Your task to perform on an android device: Search for the best-rated coffee table on Crate & Barrel Image 0: 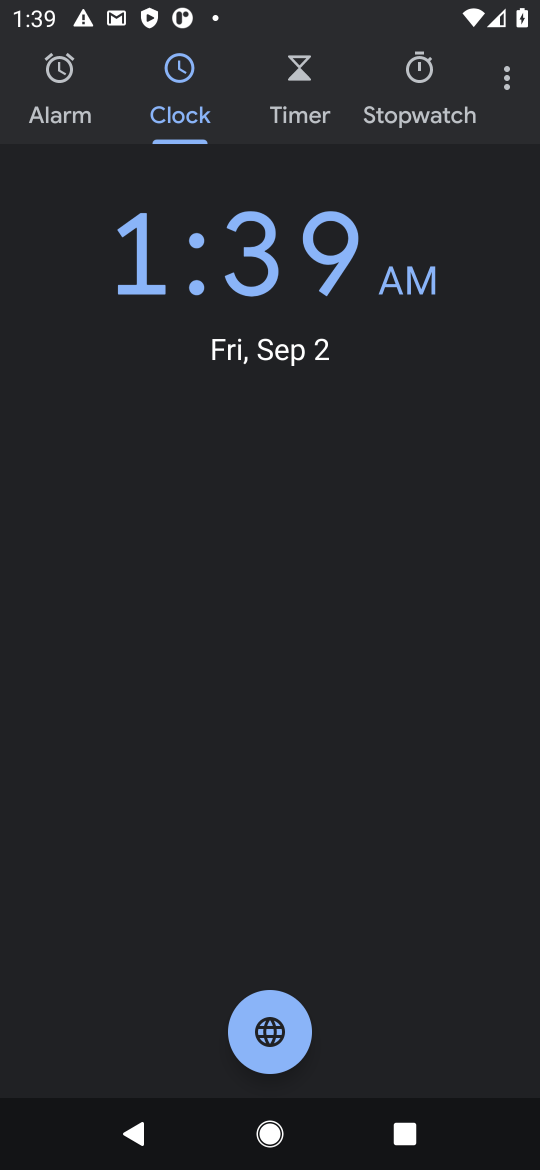
Step 0: press home button
Your task to perform on an android device: Search for the best-rated coffee table on Crate & Barrel Image 1: 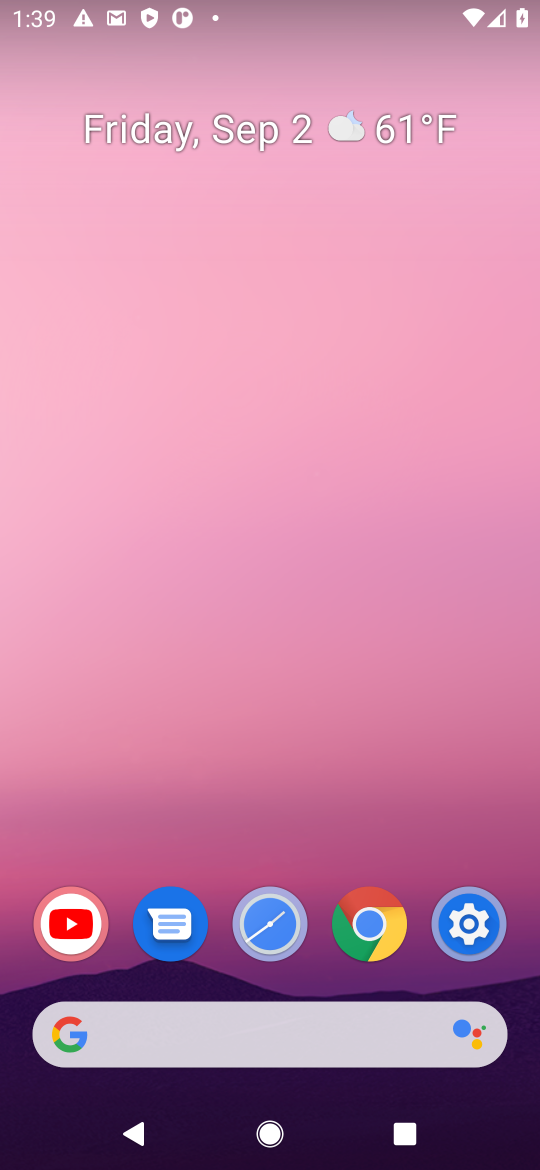
Step 1: click (384, 1036)
Your task to perform on an android device: Search for the best-rated coffee table on Crate & Barrel Image 2: 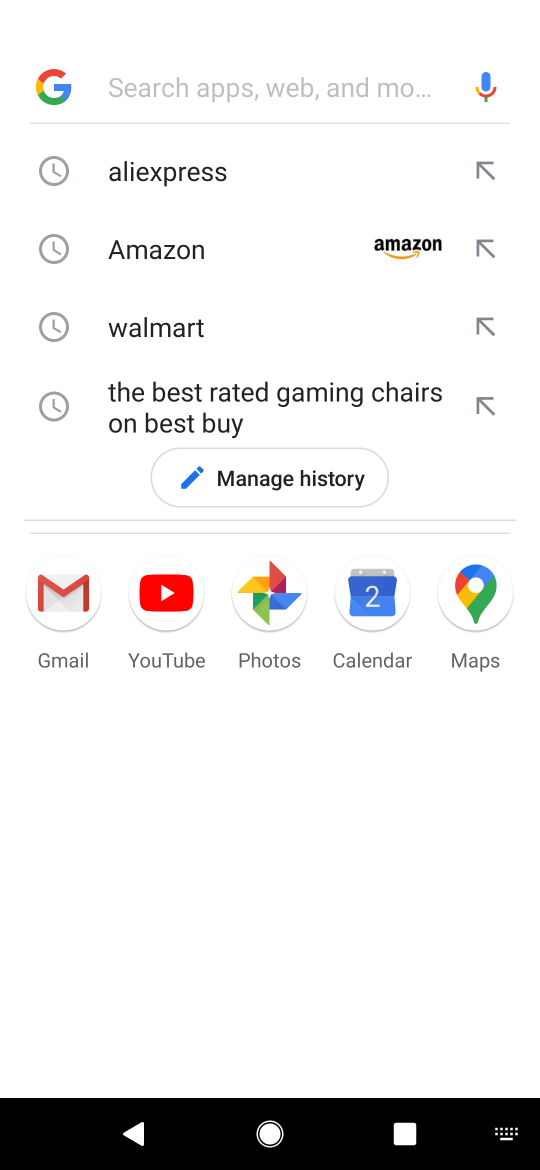
Step 2: press enter
Your task to perform on an android device: Search for the best-rated coffee table on Crate & Barrel Image 3: 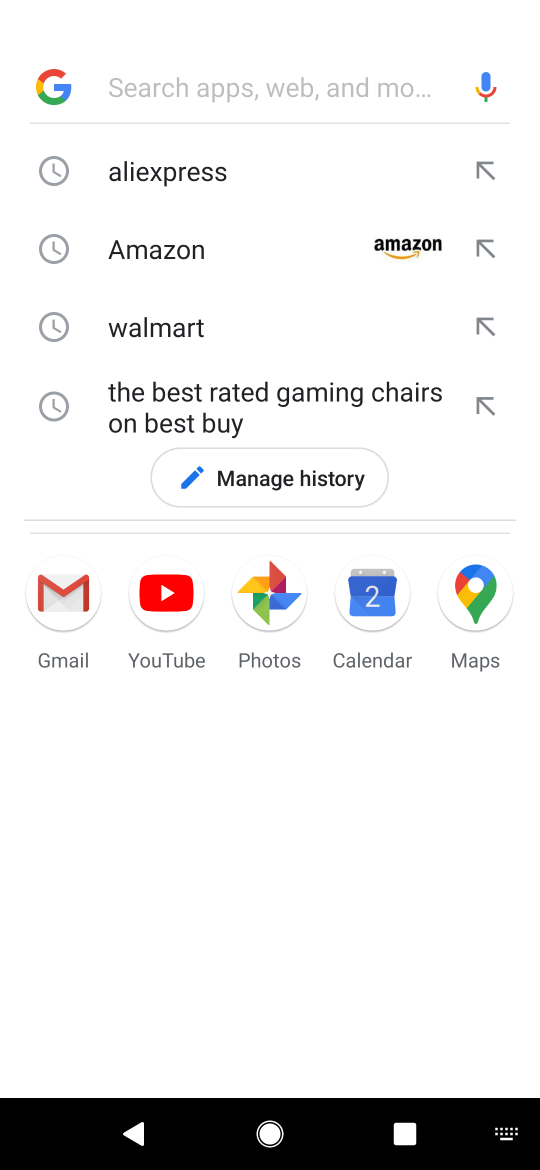
Step 3: type "crate barrel"
Your task to perform on an android device: Search for the best-rated coffee table on Crate & Barrel Image 4: 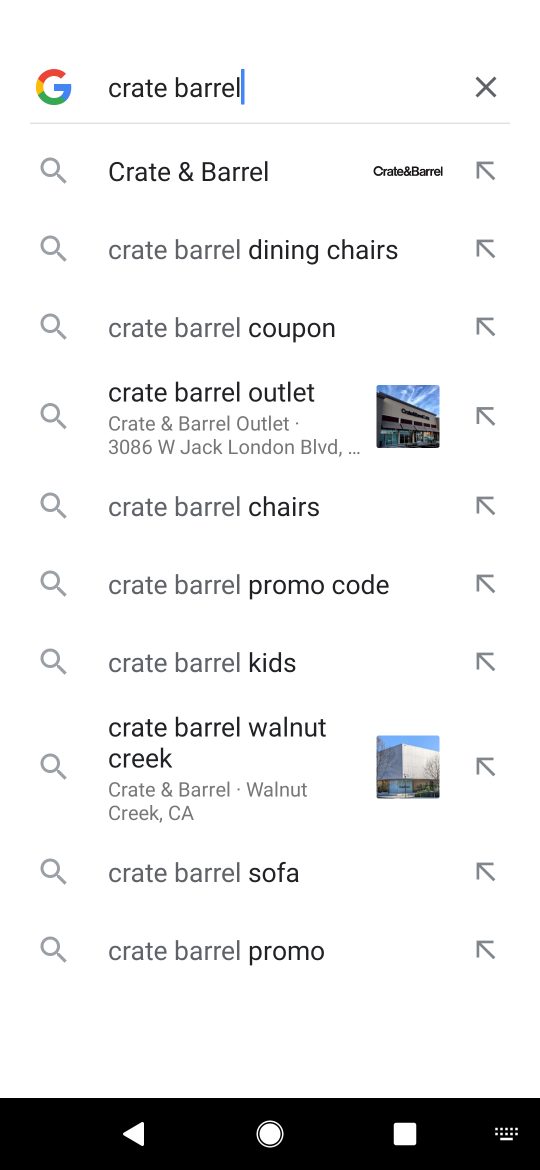
Step 4: click (229, 168)
Your task to perform on an android device: Search for the best-rated coffee table on Crate & Barrel Image 5: 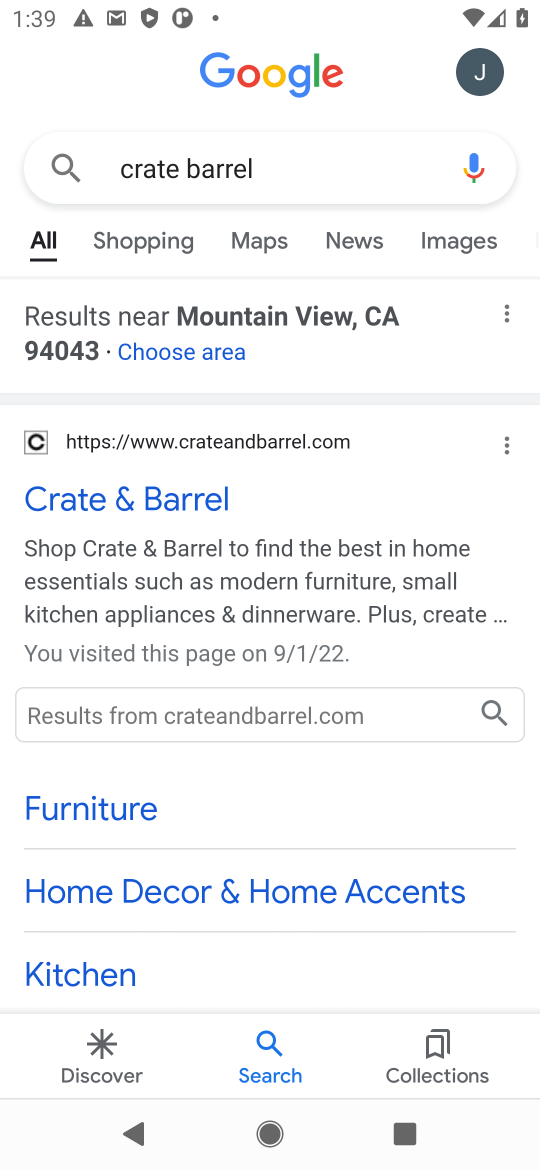
Step 5: click (194, 501)
Your task to perform on an android device: Search for the best-rated coffee table on Crate & Barrel Image 6: 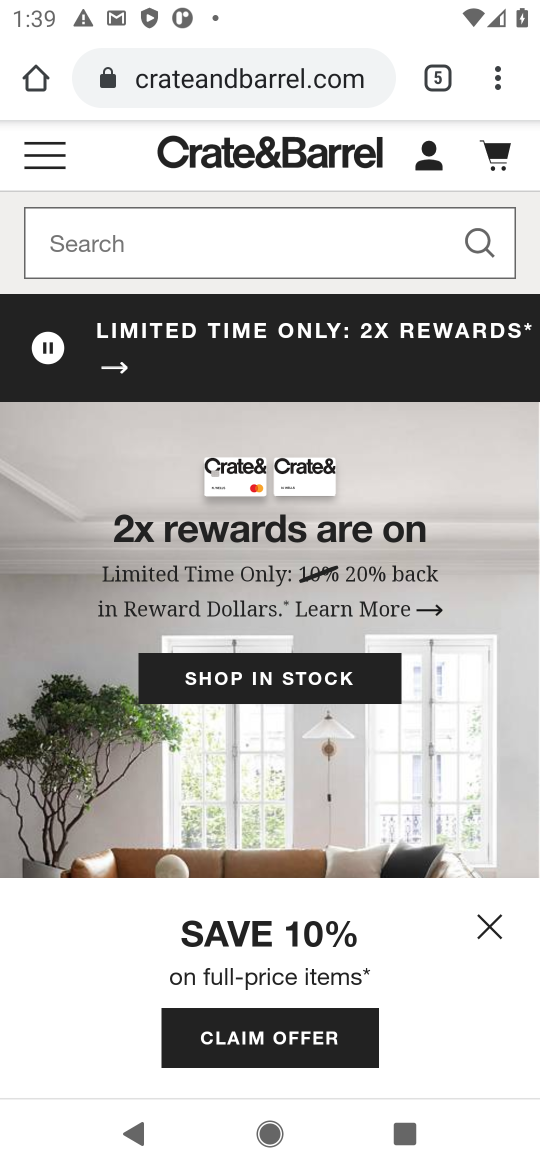
Step 6: click (95, 235)
Your task to perform on an android device: Search for the best-rated coffee table on Crate & Barrel Image 7: 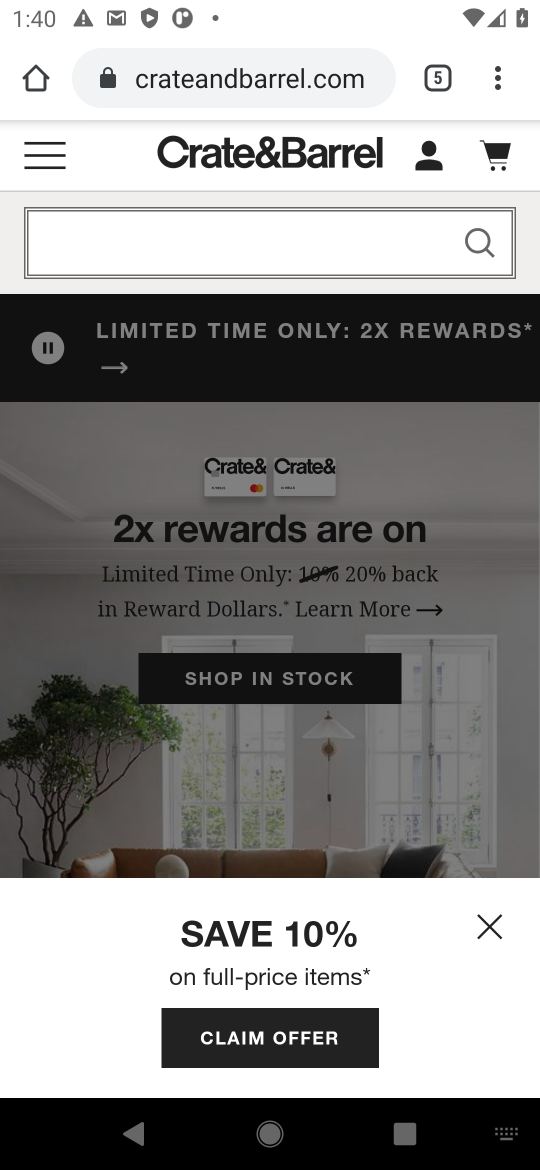
Step 7: type "coffee table"
Your task to perform on an android device: Search for the best-rated coffee table on Crate & Barrel Image 8: 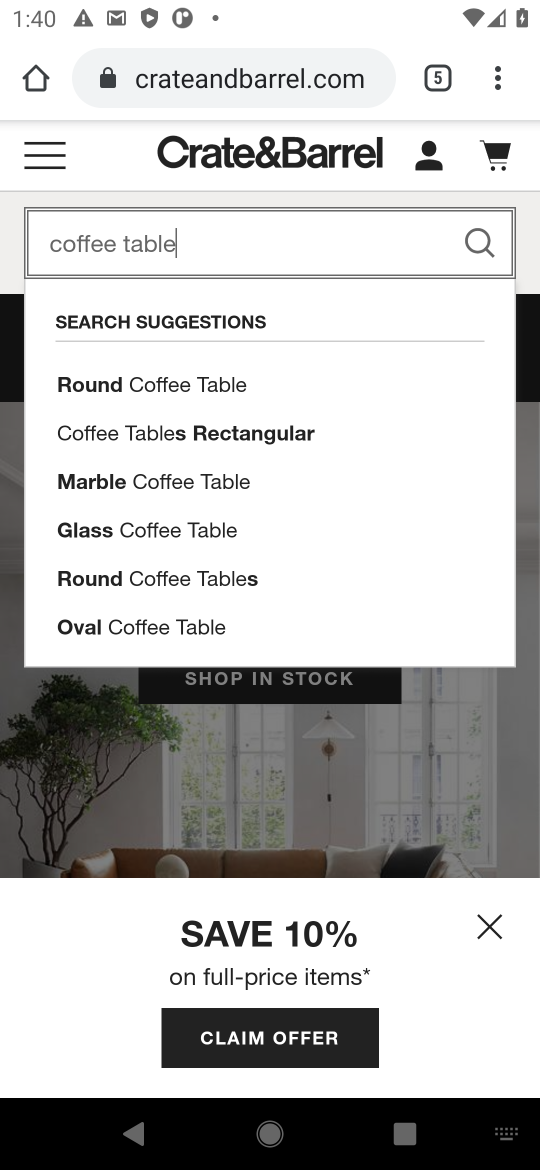
Step 8: click (484, 237)
Your task to perform on an android device: Search for the best-rated coffee table on Crate & Barrel Image 9: 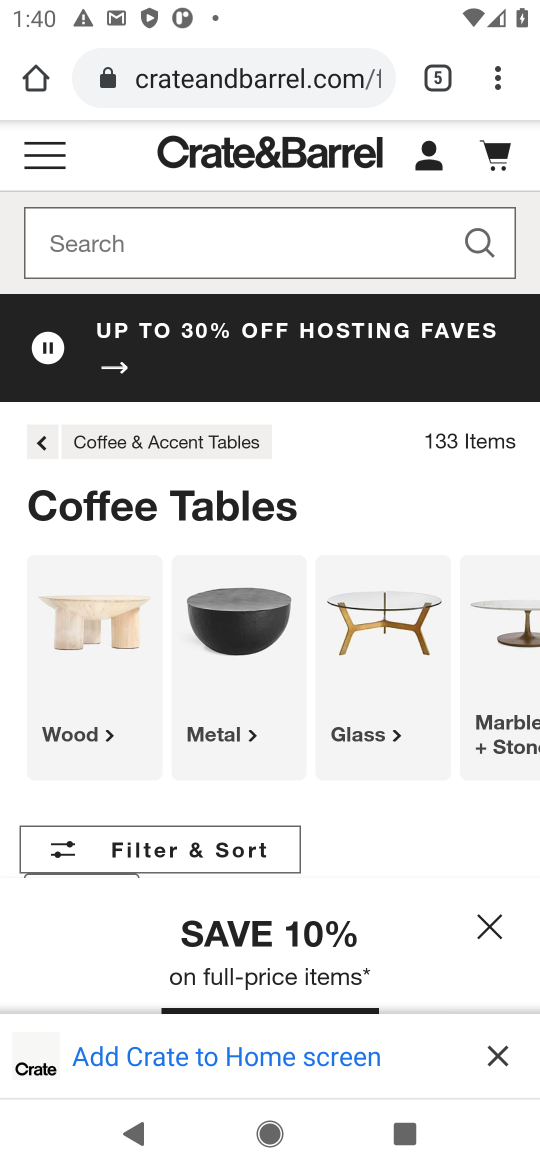
Step 9: task complete